Your task to perform on an android device: Go to ESPN.com Image 0: 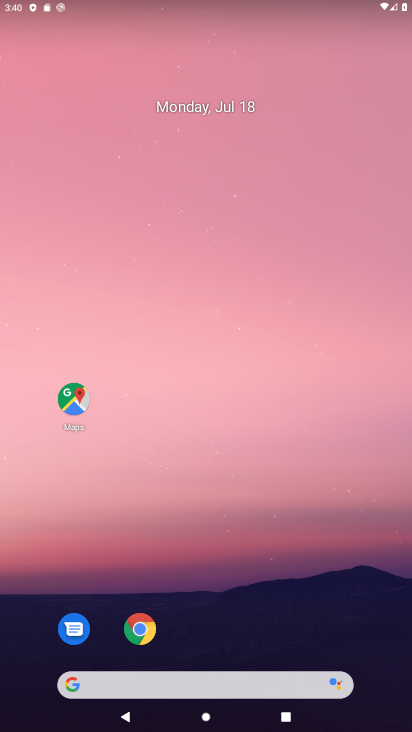
Step 0: drag from (209, 670) to (286, 157)
Your task to perform on an android device: Go to ESPN.com Image 1: 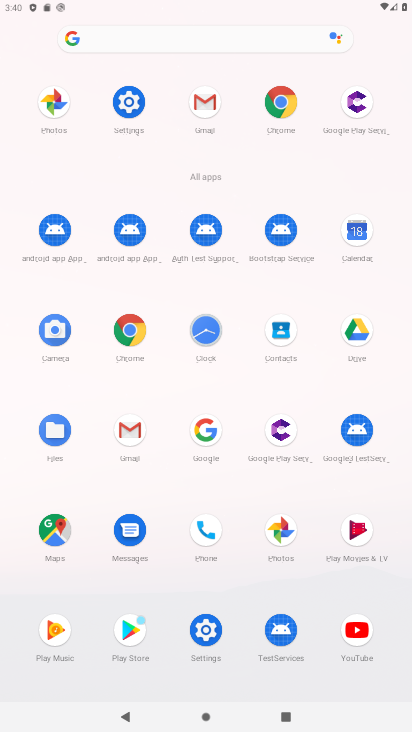
Step 1: click (135, 336)
Your task to perform on an android device: Go to ESPN.com Image 2: 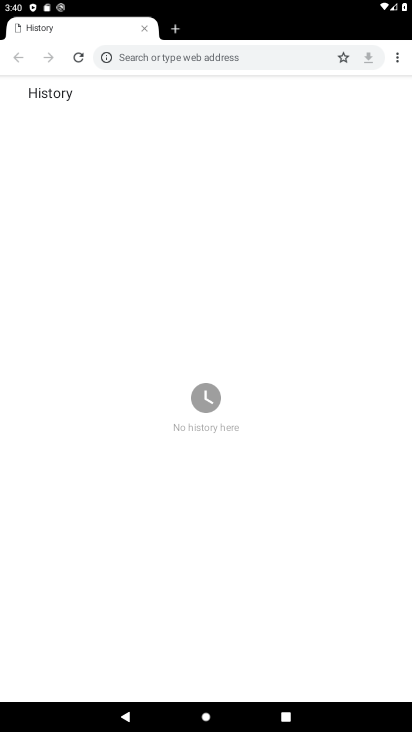
Step 2: click (398, 49)
Your task to perform on an android device: Go to ESPN.com Image 3: 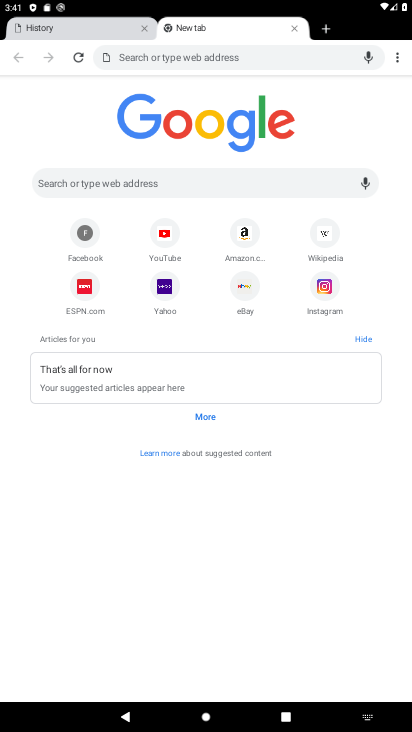
Step 3: click (92, 295)
Your task to perform on an android device: Go to ESPN.com Image 4: 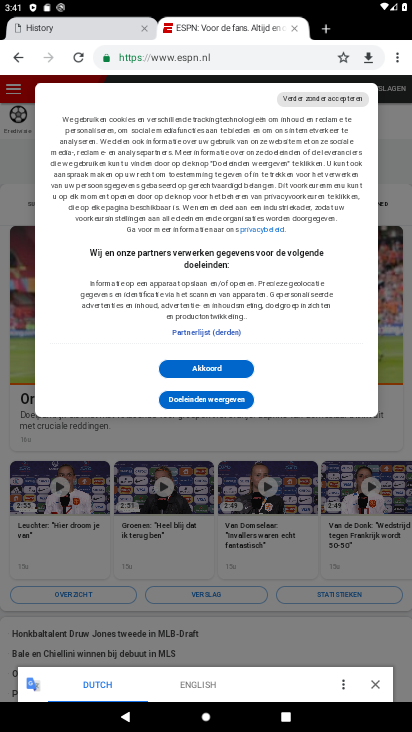
Step 4: click (215, 369)
Your task to perform on an android device: Go to ESPN.com Image 5: 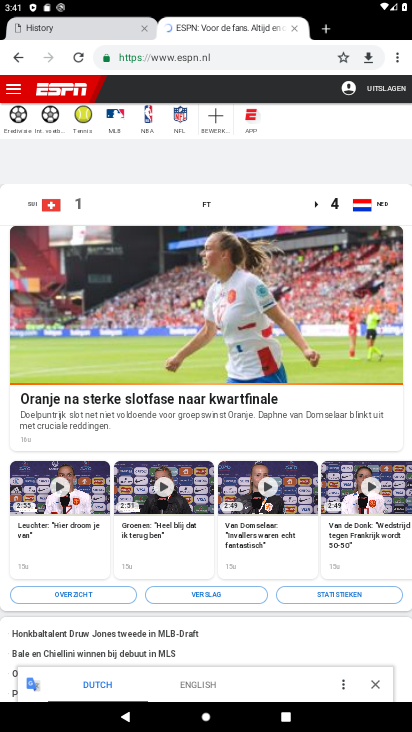
Step 5: task complete